Your task to perform on an android device: Toggle the flashlight Image 0: 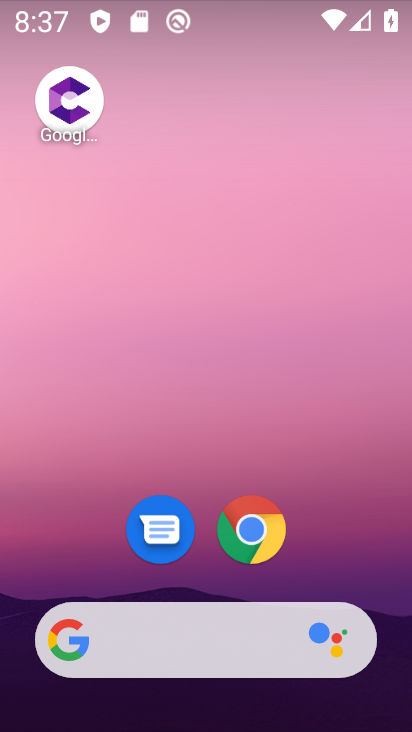
Step 0: drag from (374, 597) to (329, 217)
Your task to perform on an android device: Toggle the flashlight Image 1: 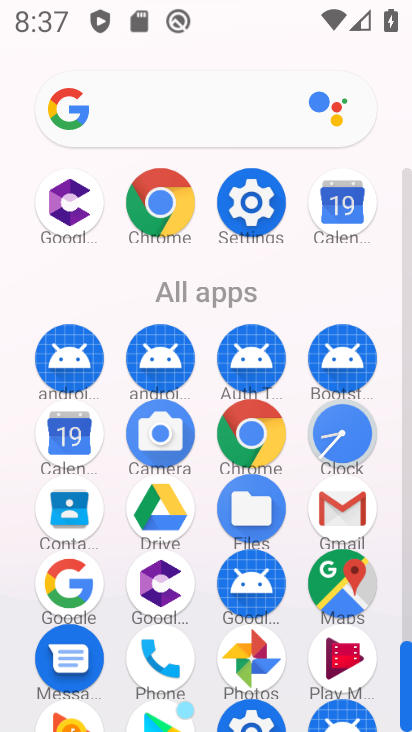
Step 1: press home button
Your task to perform on an android device: Toggle the flashlight Image 2: 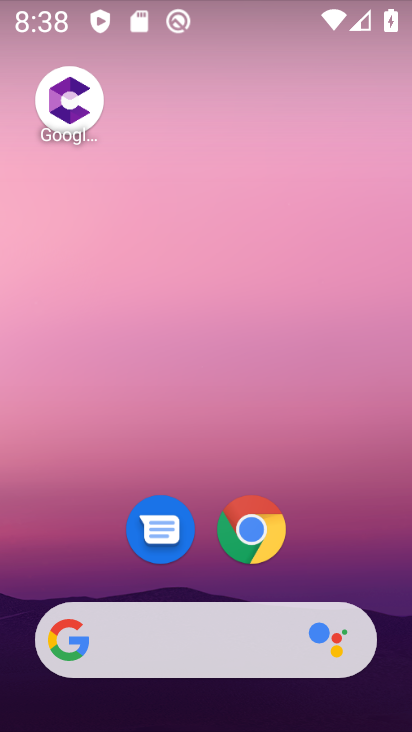
Step 2: drag from (235, 25) to (224, 484)
Your task to perform on an android device: Toggle the flashlight Image 3: 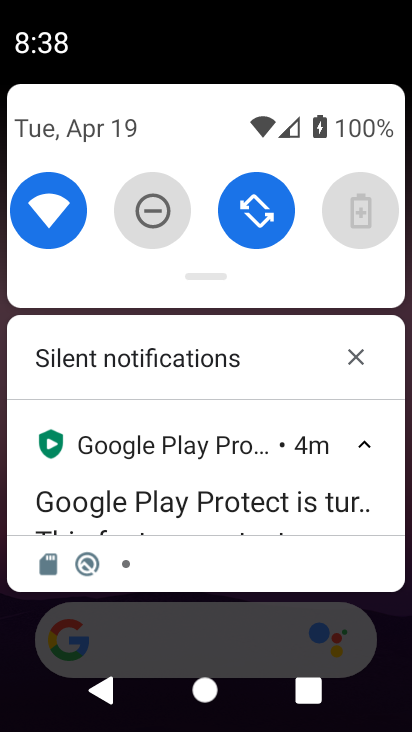
Step 3: drag from (230, 275) to (229, 587)
Your task to perform on an android device: Toggle the flashlight Image 4: 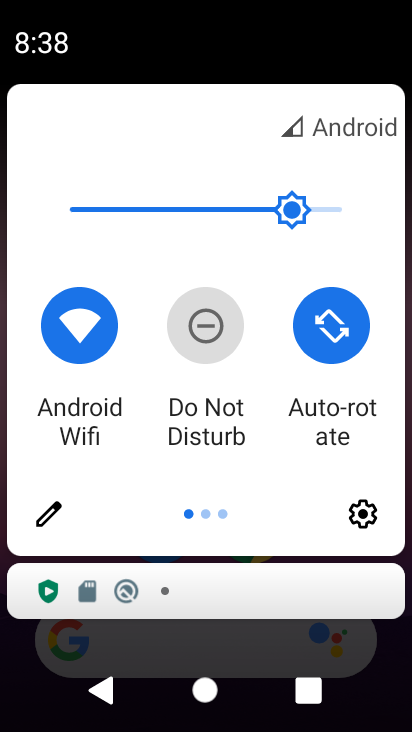
Step 4: click (43, 510)
Your task to perform on an android device: Toggle the flashlight Image 5: 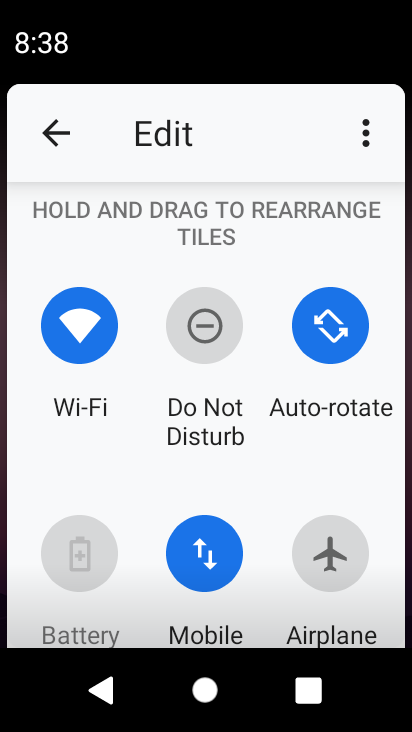
Step 5: task complete